Your task to perform on an android device: snooze an email in the gmail app Image 0: 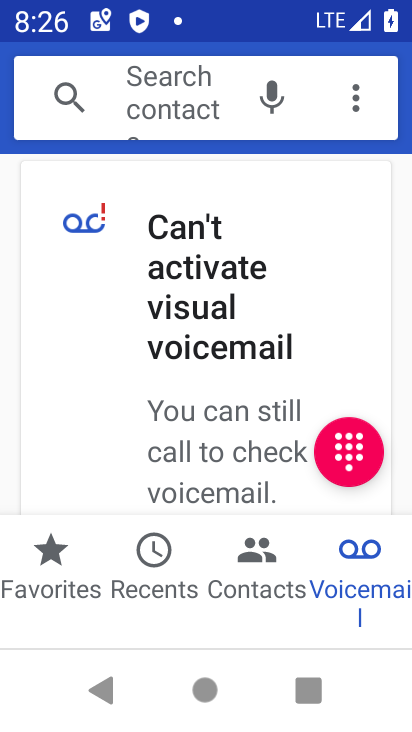
Step 0: press home button
Your task to perform on an android device: snooze an email in the gmail app Image 1: 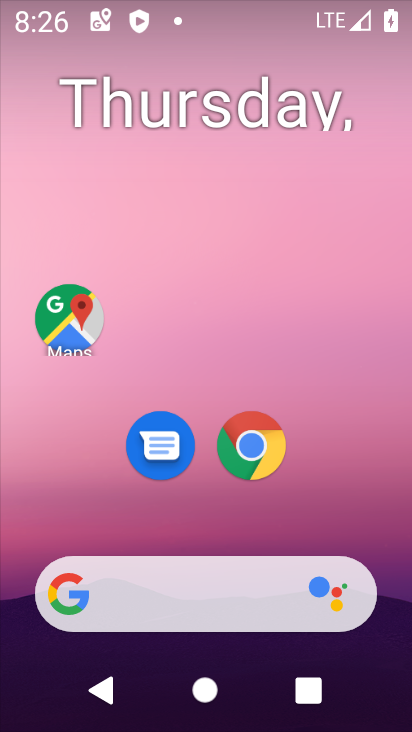
Step 1: drag from (398, 622) to (281, 57)
Your task to perform on an android device: snooze an email in the gmail app Image 2: 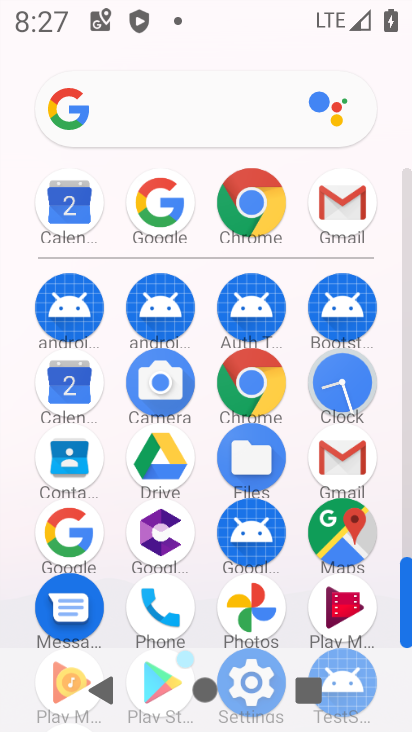
Step 2: click (352, 459)
Your task to perform on an android device: snooze an email in the gmail app Image 3: 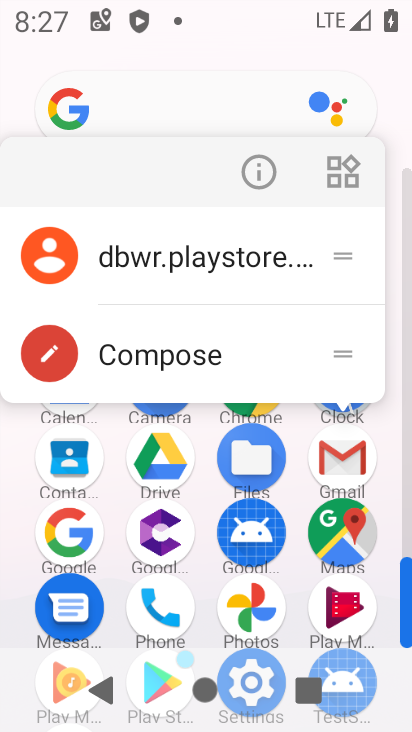
Step 3: click (352, 459)
Your task to perform on an android device: snooze an email in the gmail app Image 4: 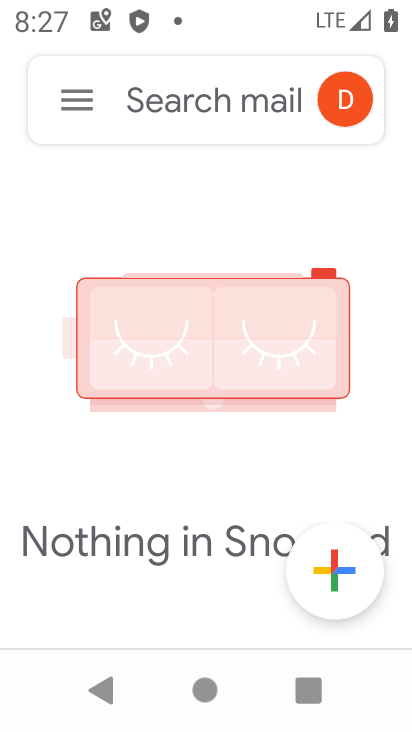
Step 4: click (80, 92)
Your task to perform on an android device: snooze an email in the gmail app Image 5: 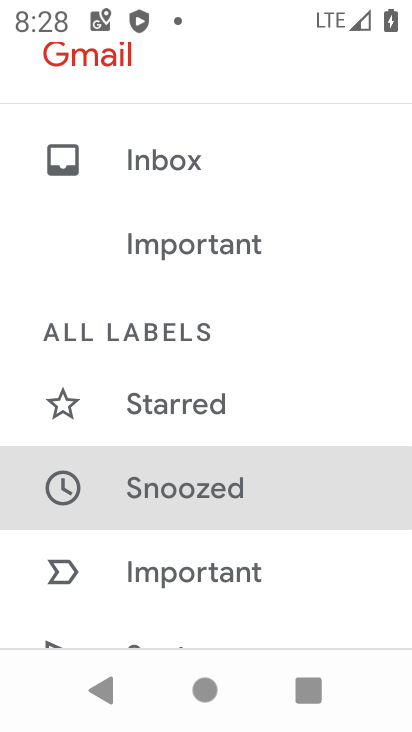
Step 5: click (160, 476)
Your task to perform on an android device: snooze an email in the gmail app Image 6: 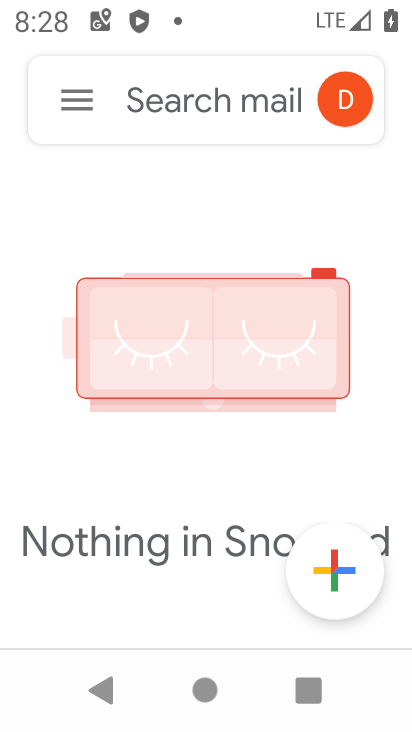
Step 6: task complete